Your task to perform on an android device: change notification settings in the gmail app Image 0: 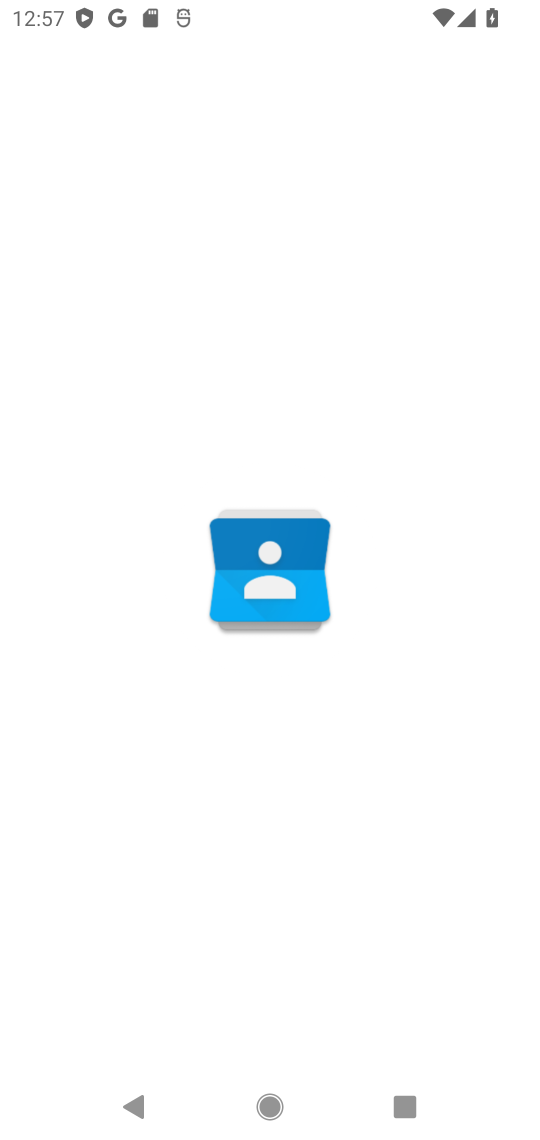
Step 0: drag from (253, 977) to (289, 64)
Your task to perform on an android device: change notification settings in the gmail app Image 1: 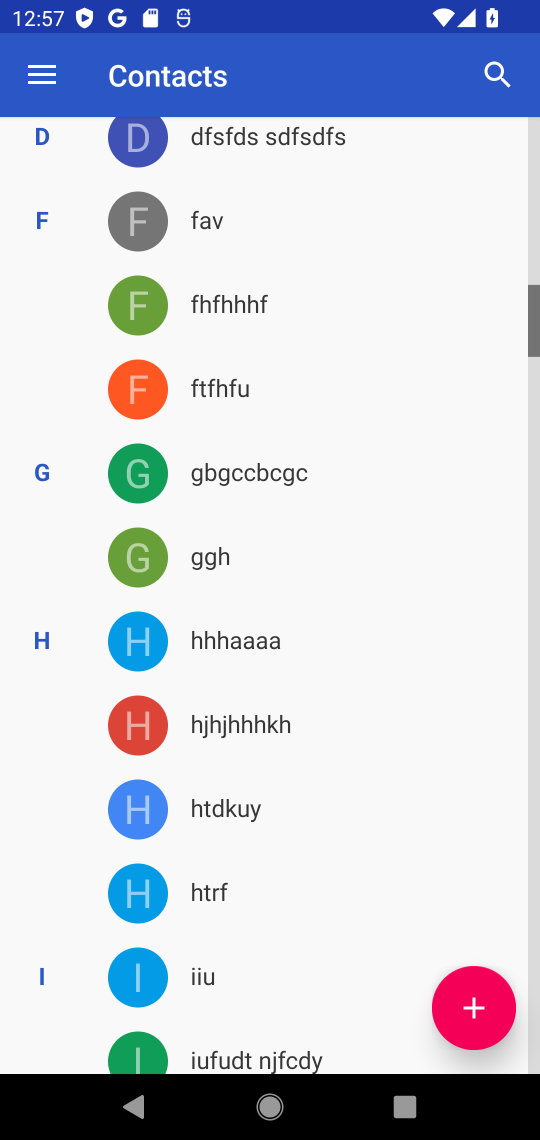
Step 1: press home button
Your task to perform on an android device: change notification settings in the gmail app Image 2: 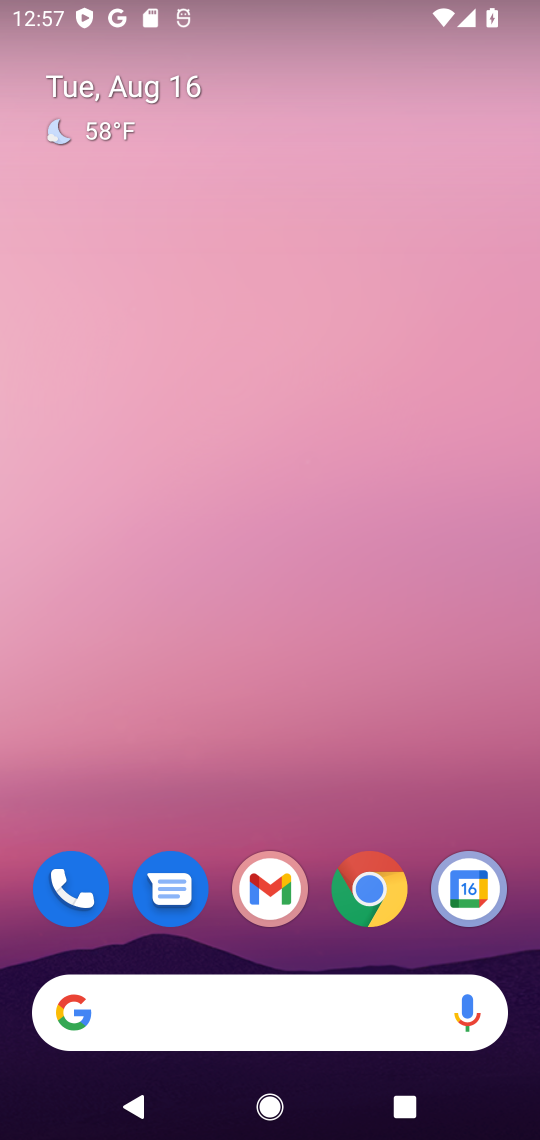
Step 2: drag from (235, 966) to (248, 10)
Your task to perform on an android device: change notification settings in the gmail app Image 3: 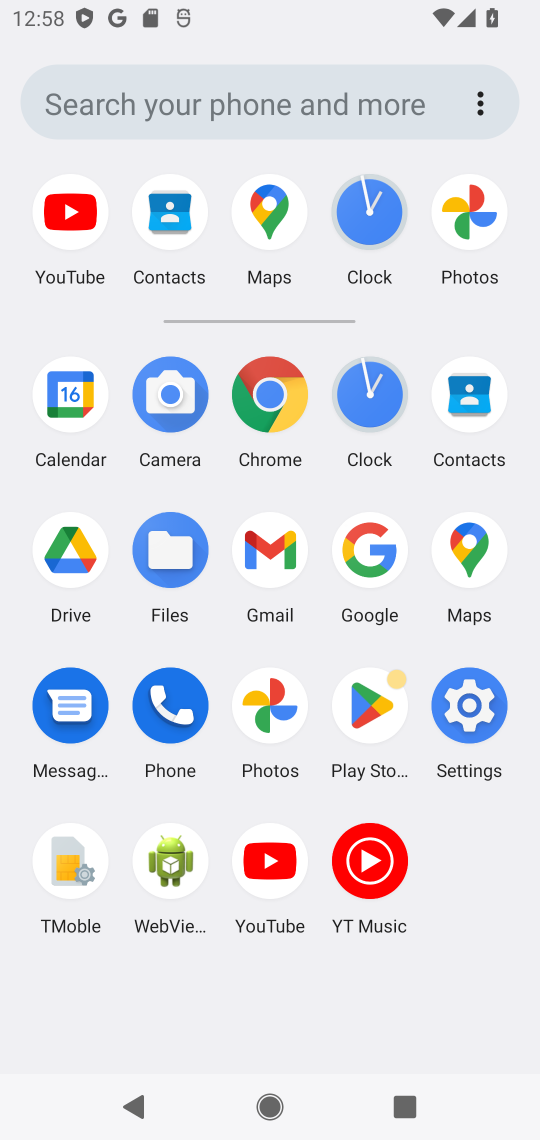
Step 3: click (284, 569)
Your task to perform on an android device: change notification settings in the gmail app Image 4: 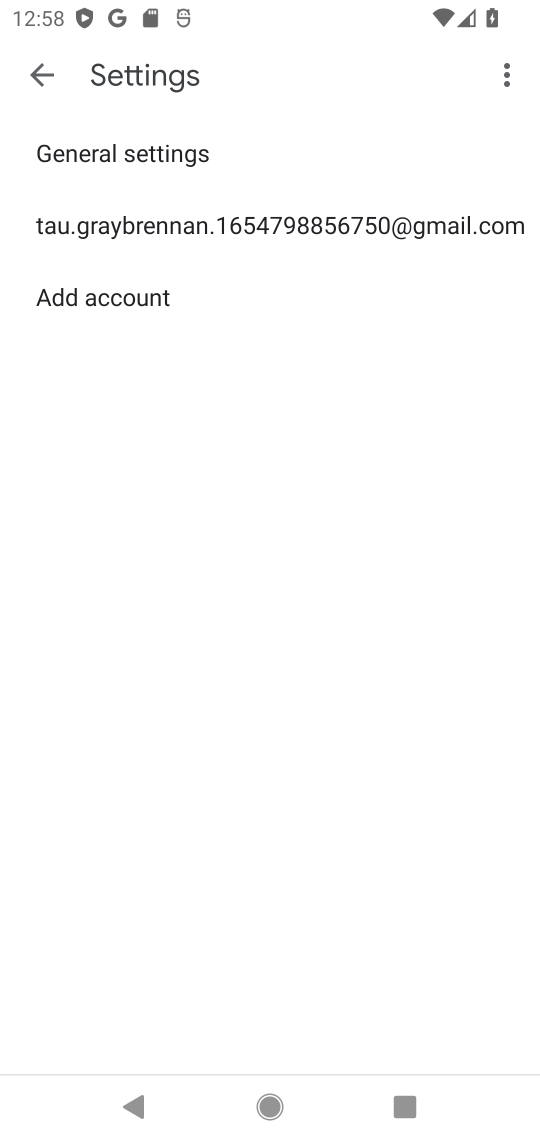
Step 4: click (135, 226)
Your task to perform on an android device: change notification settings in the gmail app Image 5: 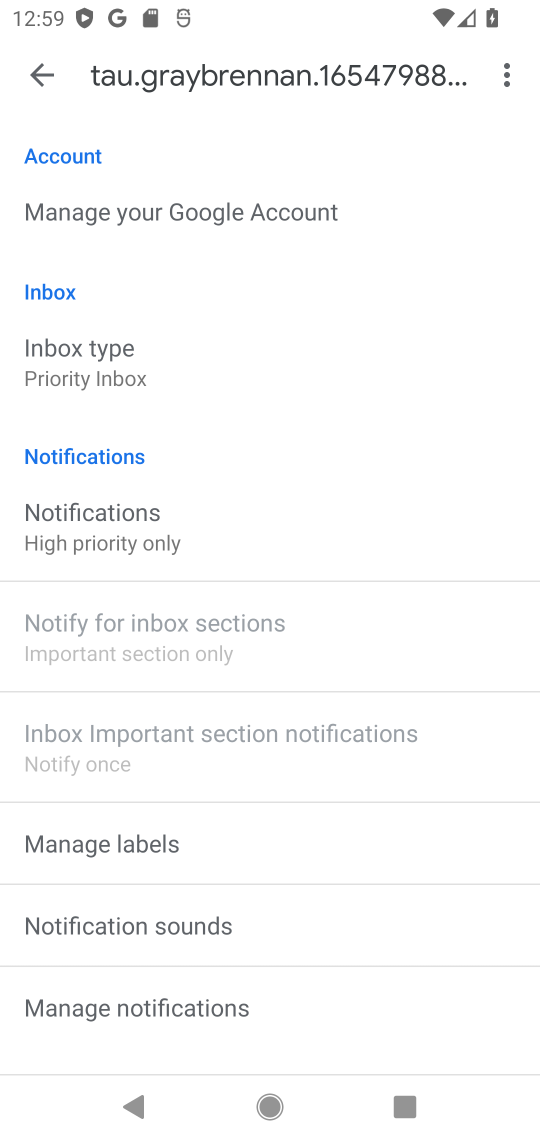
Step 5: click (75, 529)
Your task to perform on an android device: change notification settings in the gmail app Image 6: 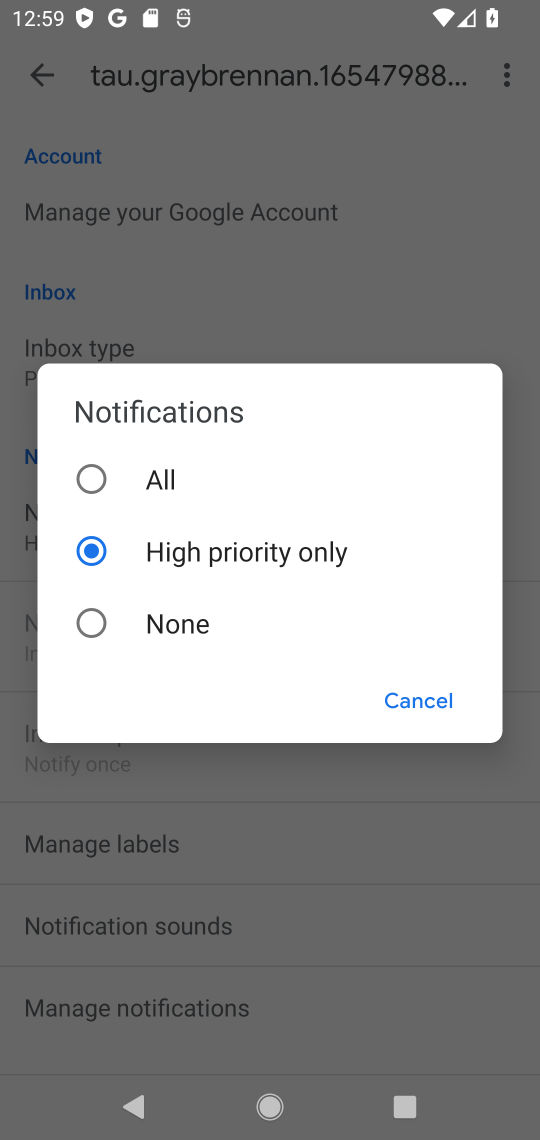
Step 6: click (71, 462)
Your task to perform on an android device: change notification settings in the gmail app Image 7: 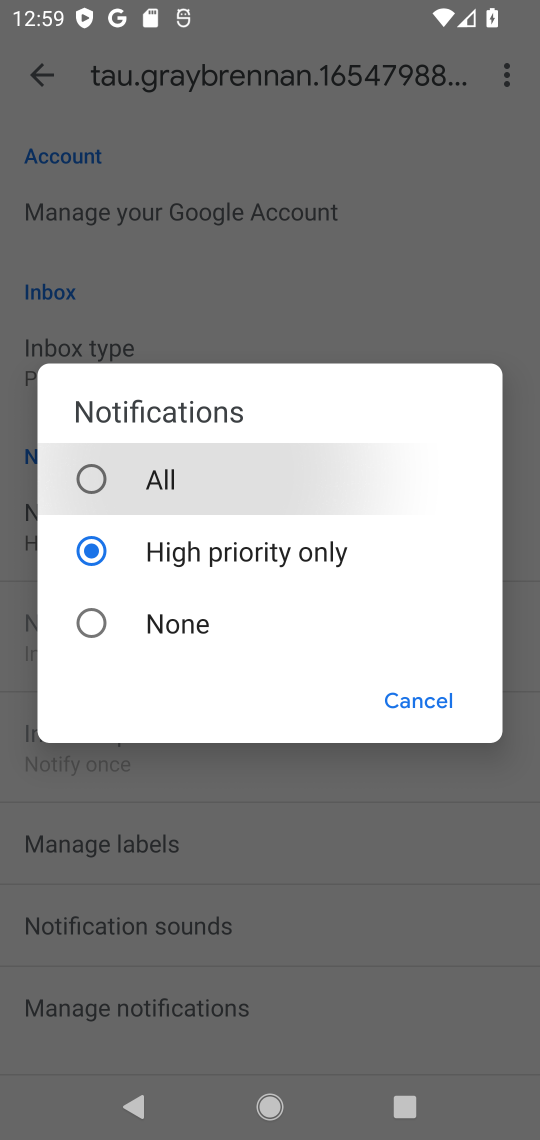
Step 7: click (88, 479)
Your task to perform on an android device: change notification settings in the gmail app Image 8: 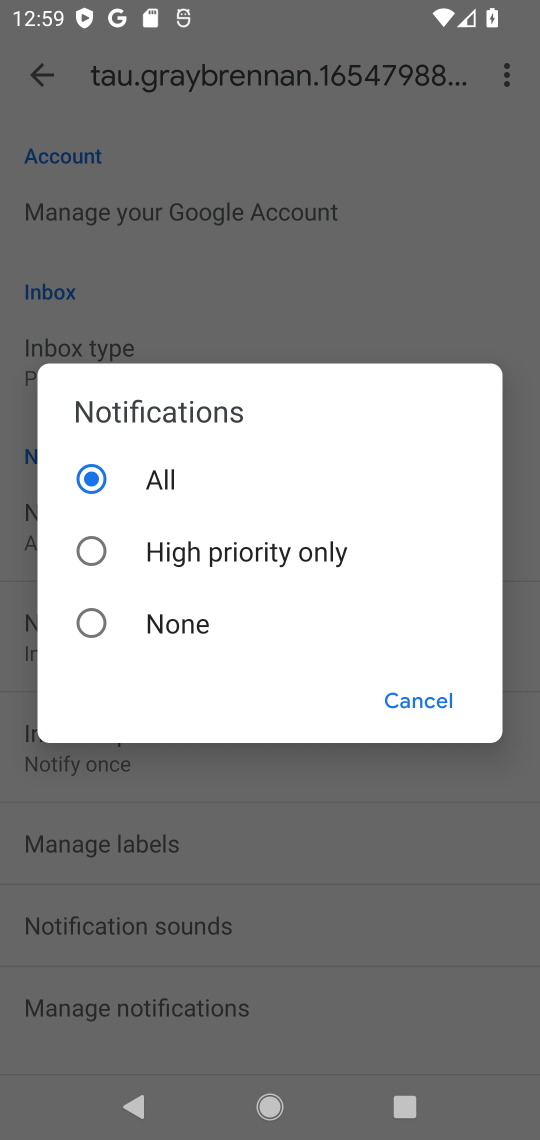
Step 8: task complete